Your task to perform on an android device: Go to Yahoo.com Image 0: 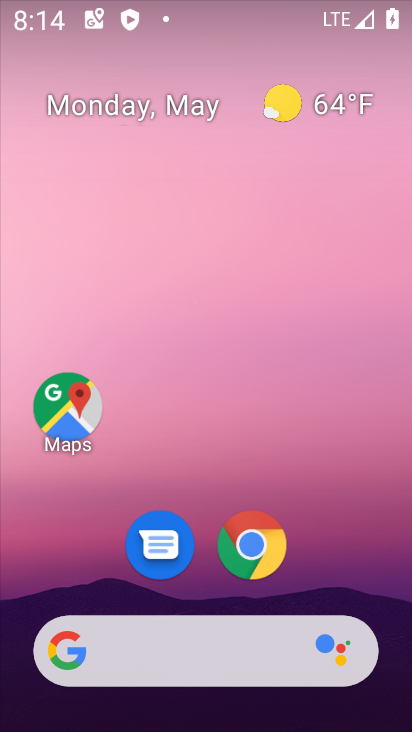
Step 0: click (245, 573)
Your task to perform on an android device: Go to Yahoo.com Image 1: 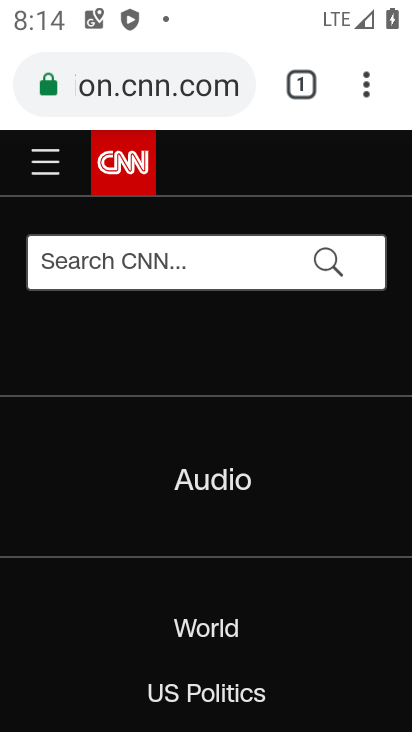
Step 1: click (203, 83)
Your task to perform on an android device: Go to Yahoo.com Image 2: 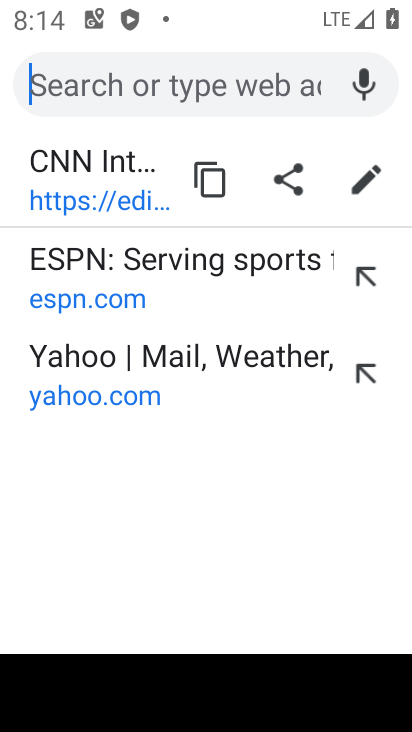
Step 2: click (168, 376)
Your task to perform on an android device: Go to Yahoo.com Image 3: 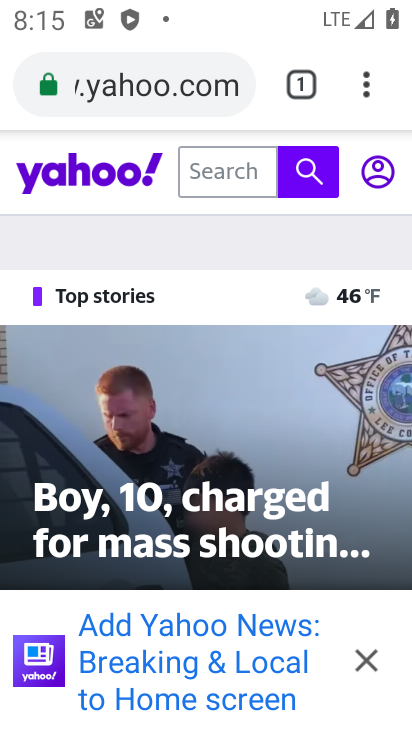
Step 3: task complete